Your task to perform on an android device: change the upload size in google photos Image 0: 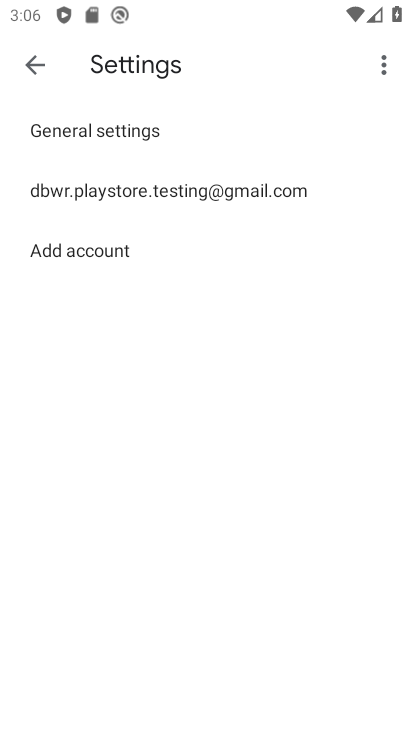
Step 0: press home button
Your task to perform on an android device: change the upload size in google photos Image 1: 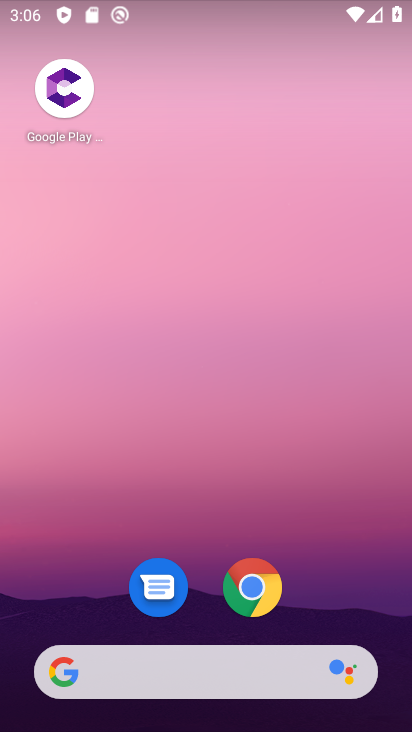
Step 1: drag from (181, 668) to (356, 44)
Your task to perform on an android device: change the upload size in google photos Image 2: 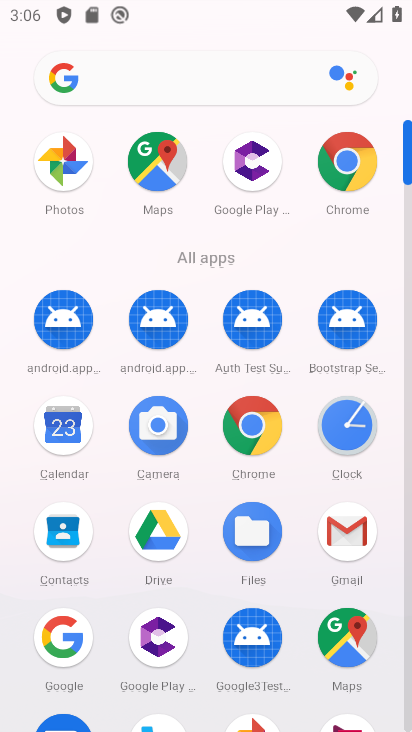
Step 2: click (58, 167)
Your task to perform on an android device: change the upload size in google photos Image 3: 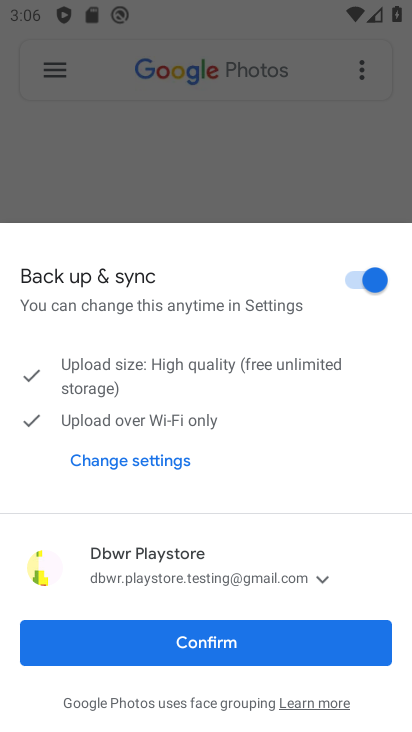
Step 3: click (210, 642)
Your task to perform on an android device: change the upload size in google photos Image 4: 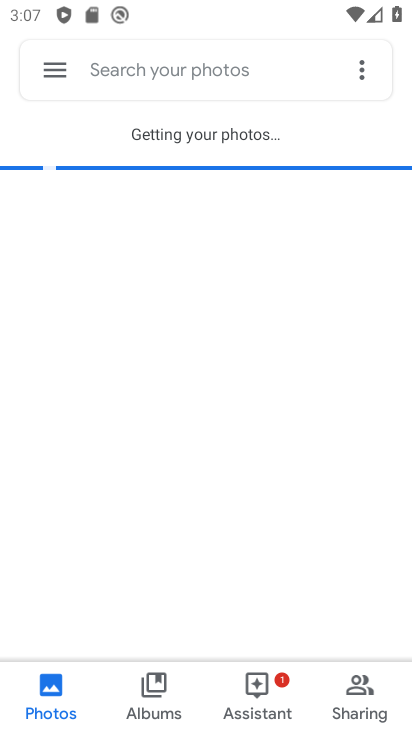
Step 4: click (51, 65)
Your task to perform on an android device: change the upload size in google photos Image 5: 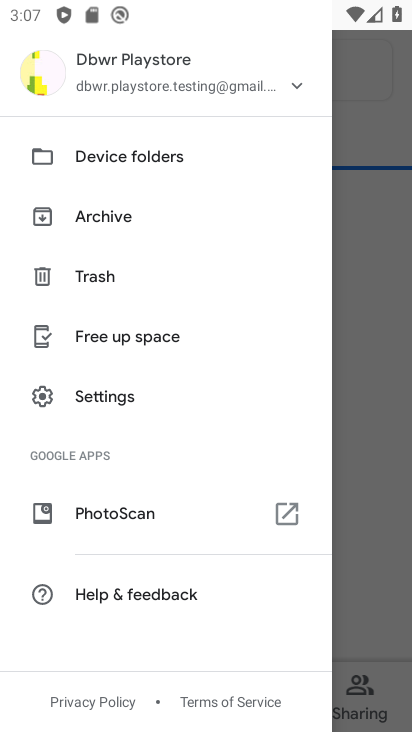
Step 5: click (118, 394)
Your task to perform on an android device: change the upload size in google photos Image 6: 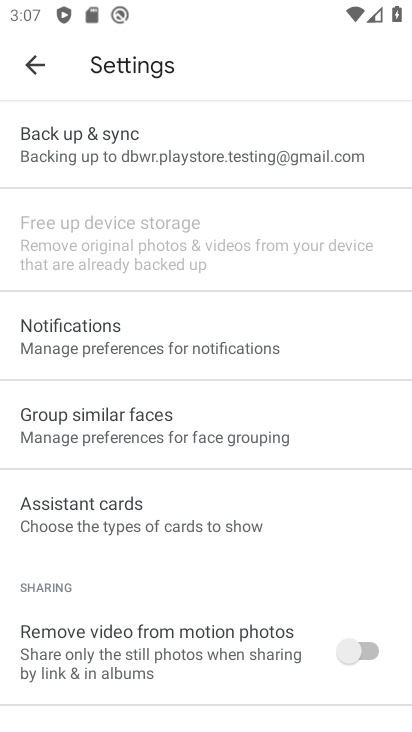
Step 6: click (155, 153)
Your task to perform on an android device: change the upload size in google photos Image 7: 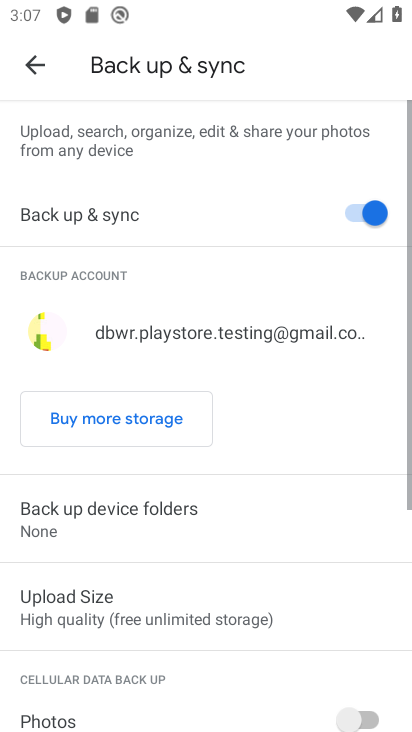
Step 7: click (142, 618)
Your task to perform on an android device: change the upload size in google photos Image 8: 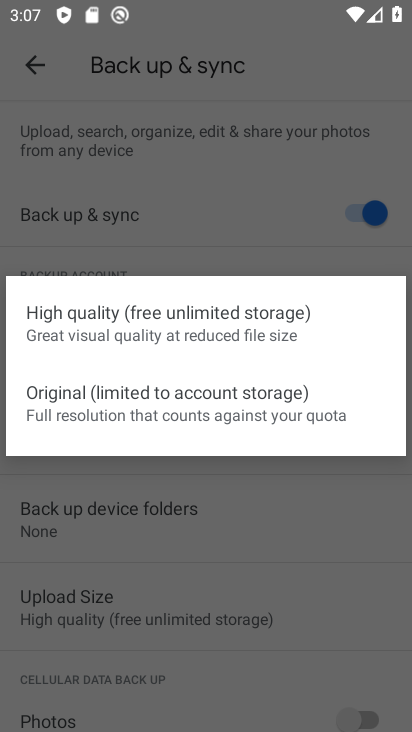
Step 8: click (86, 402)
Your task to perform on an android device: change the upload size in google photos Image 9: 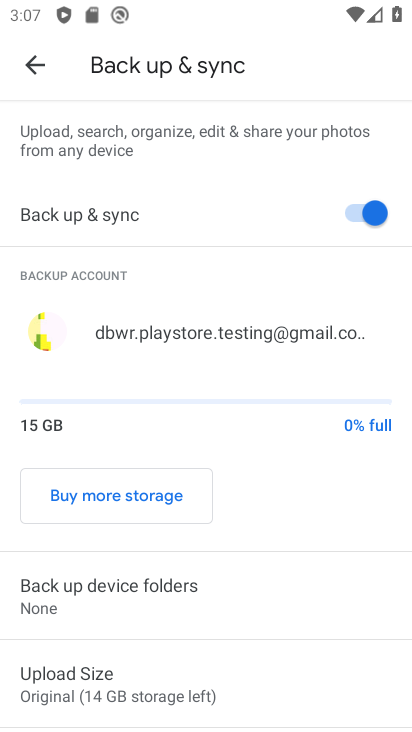
Step 9: task complete